Your task to perform on an android device: toggle notification dots Image 0: 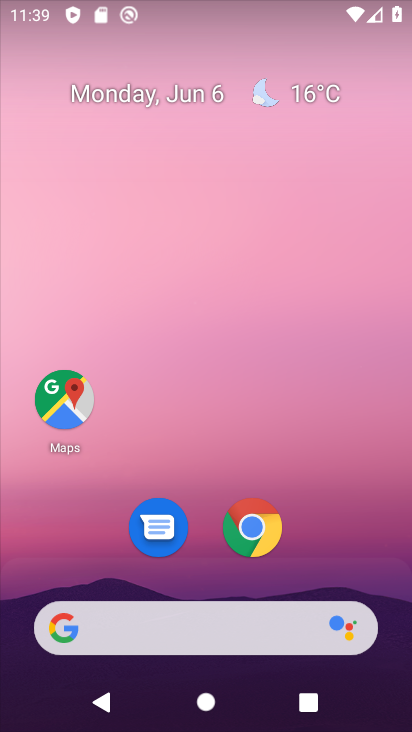
Step 0: drag from (94, 596) to (202, 116)
Your task to perform on an android device: toggle notification dots Image 1: 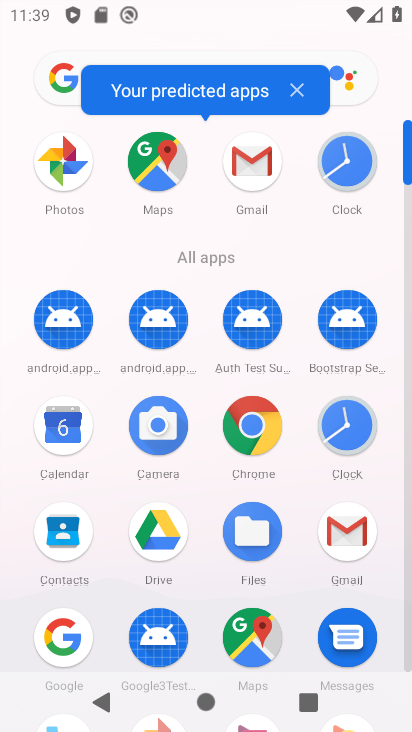
Step 1: drag from (197, 499) to (251, 262)
Your task to perform on an android device: toggle notification dots Image 2: 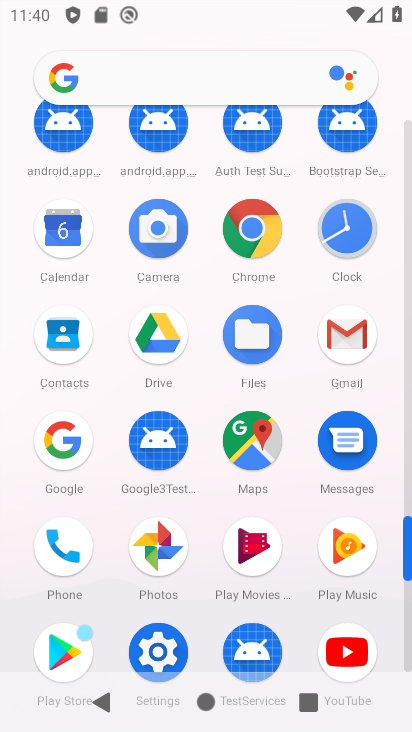
Step 2: click (152, 658)
Your task to perform on an android device: toggle notification dots Image 3: 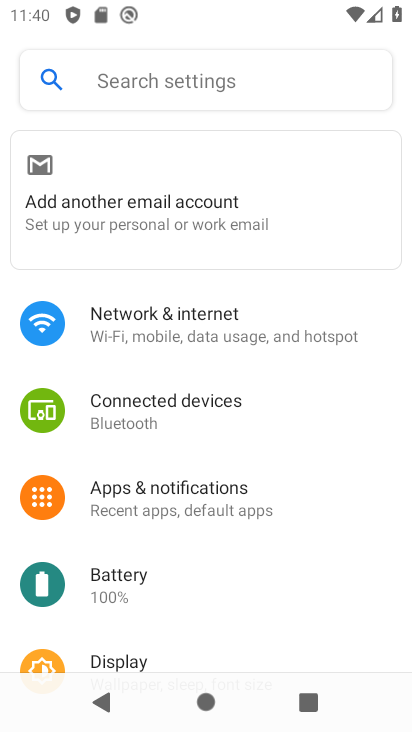
Step 3: drag from (210, 635) to (259, 357)
Your task to perform on an android device: toggle notification dots Image 4: 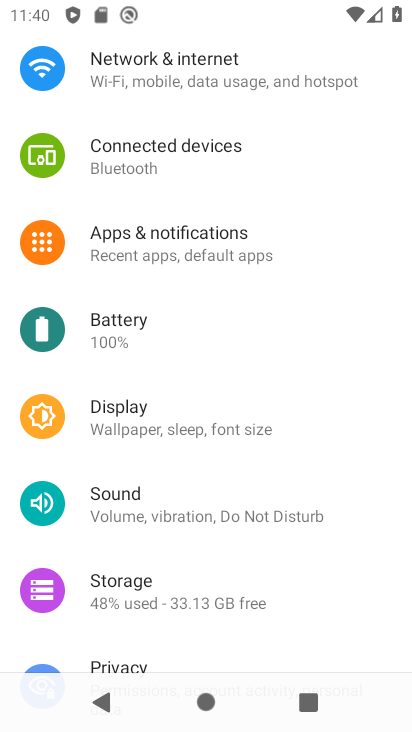
Step 4: click (216, 257)
Your task to perform on an android device: toggle notification dots Image 5: 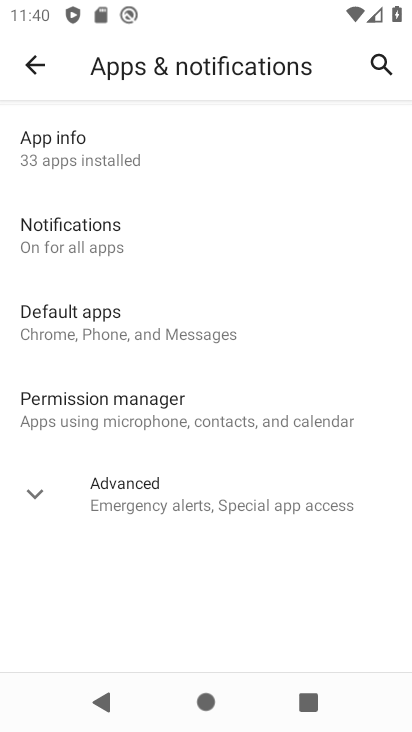
Step 5: click (150, 225)
Your task to perform on an android device: toggle notification dots Image 6: 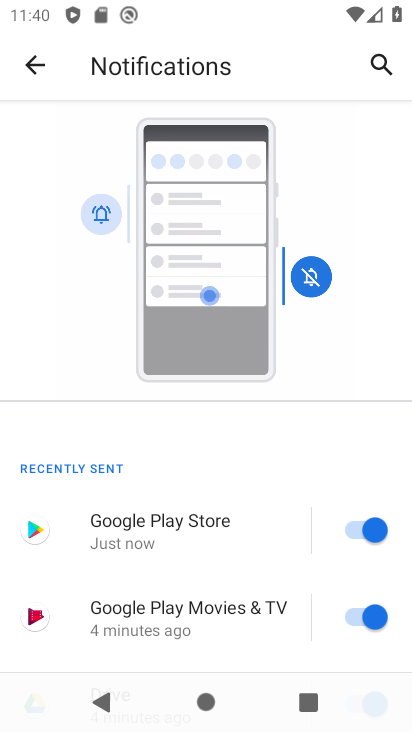
Step 6: drag from (134, 608) to (266, 86)
Your task to perform on an android device: toggle notification dots Image 7: 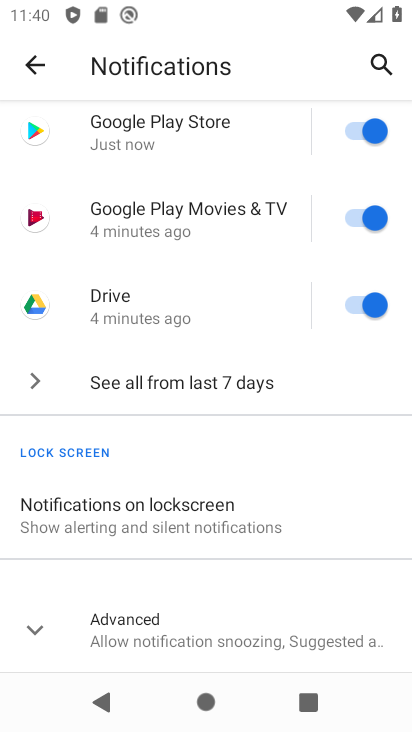
Step 7: click (143, 615)
Your task to perform on an android device: toggle notification dots Image 8: 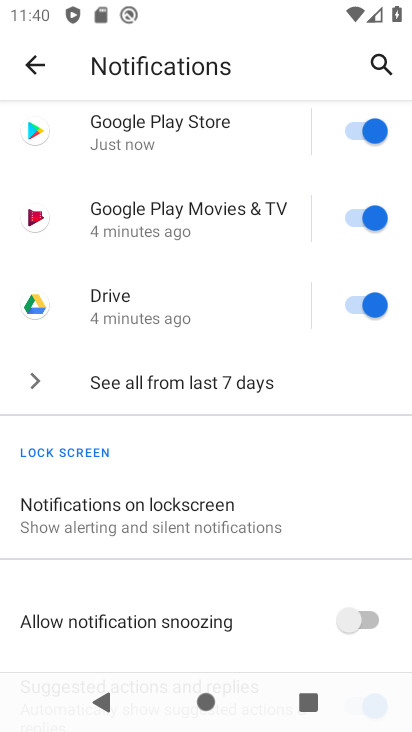
Step 8: drag from (135, 619) to (215, 315)
Your task to perform on an android device: toggle notification dots Image 9: 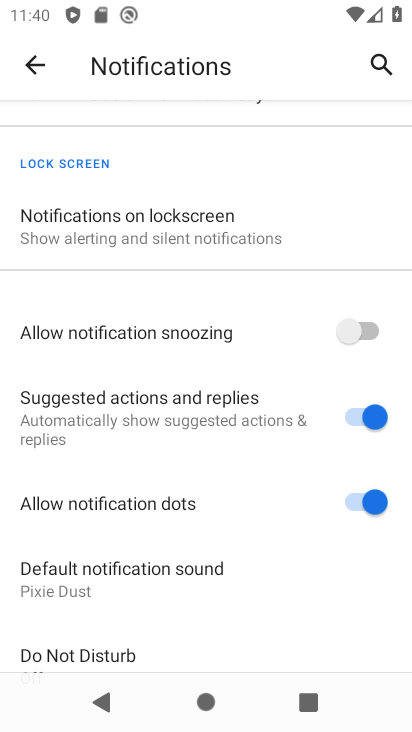
Step 9: click (360, 507)
Your task to perform on an android device: toggle notification dots Image 10: 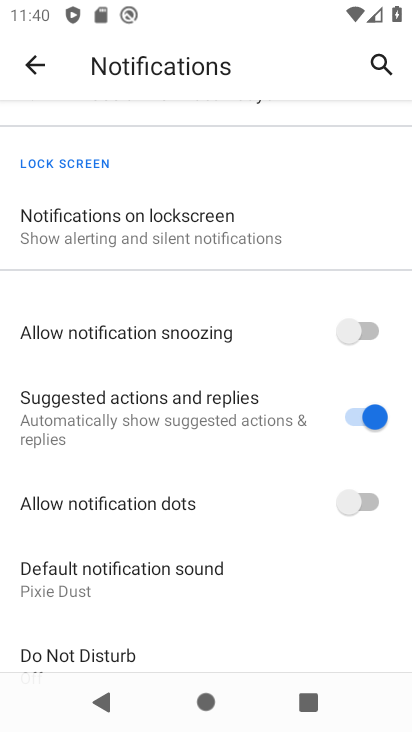
Step 10: task complete